Your task to perform on an android device: turn off improve location accuracy Image 0: 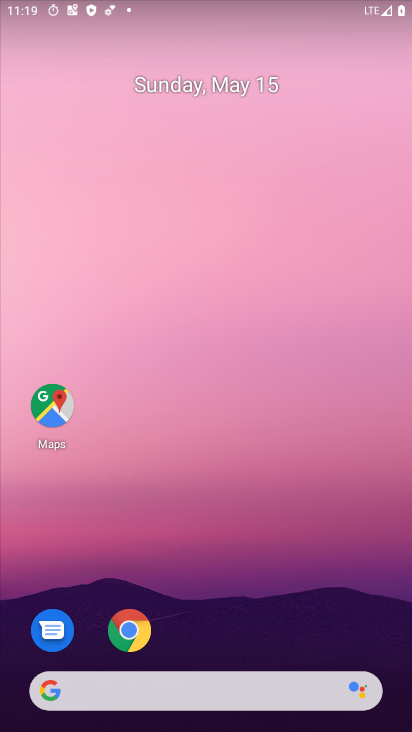
Step 0: drag from (161, 662) to (262, 233)
Your task to perform on an android device: turn off improve location accuracy Image 1: 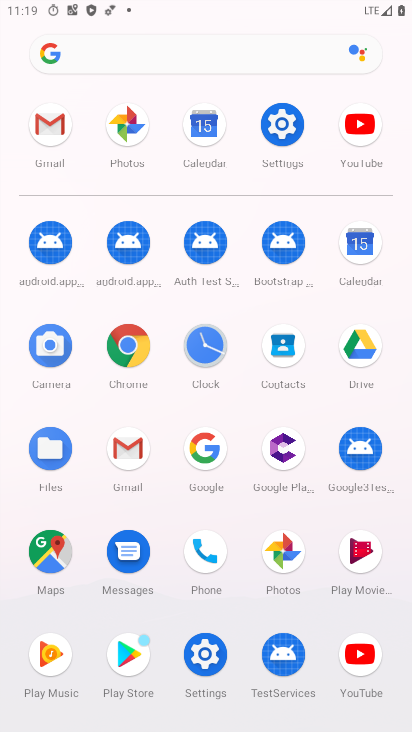
Step 1: click (282, 122)
Your task to perform on an android device: turn off improve location accuracy Image 2: 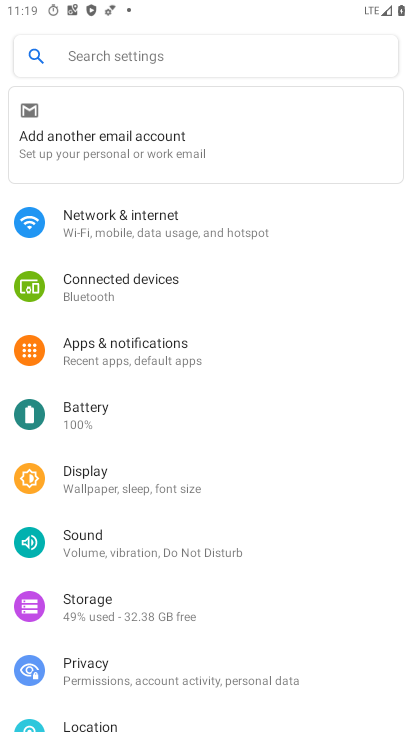
Step 2: drag from (117, 673) to (181, 441)
Your task to perform on an android device: turn off improve location accuracy Image 3: 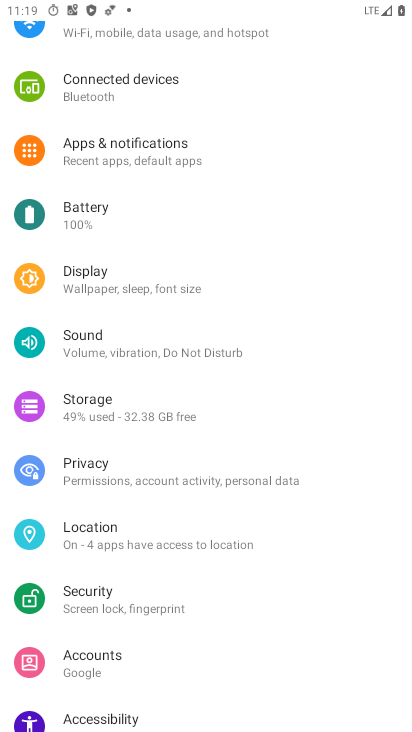
Step 3: click (105, 540)
Your task to perform on an android device: turn off improve location accuracy Image 4: 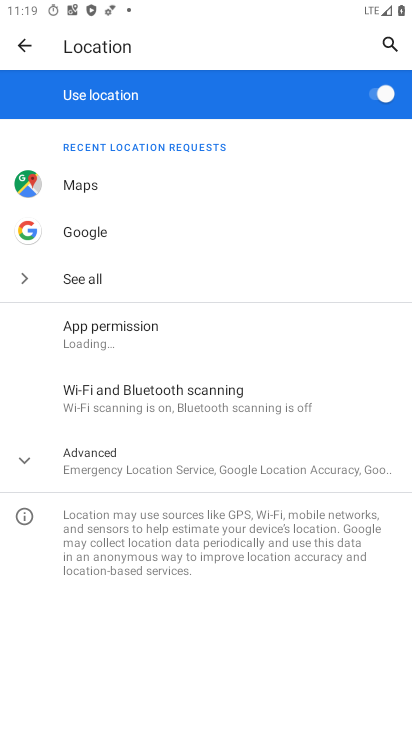
Step 4: click (128, 457)
Your task to perform on an android device: turn off improve location accuracy Image 5: 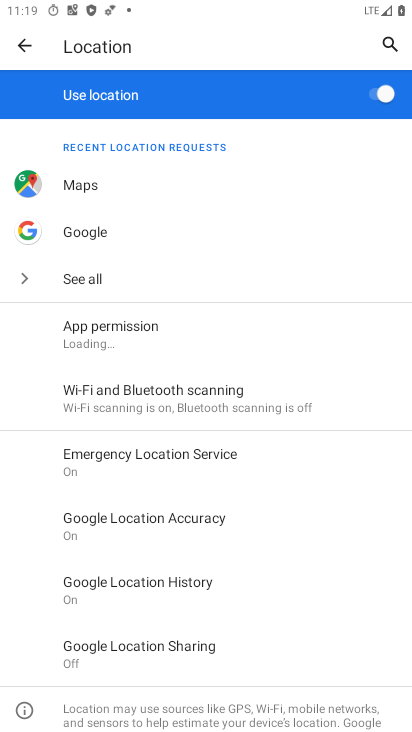
Step 5: click (140, 530)
Your task to perform on an android device: turn off improve location accuracy Image 6: 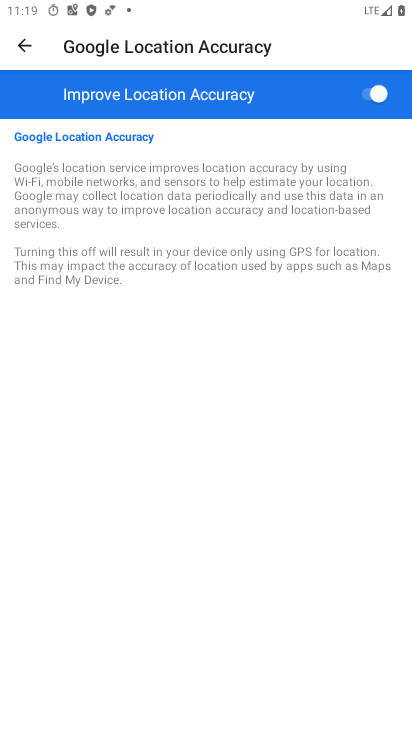
Step 6: click (376, 91)
Your task to perform on an android device: turn off improve location accuracy Image 7: 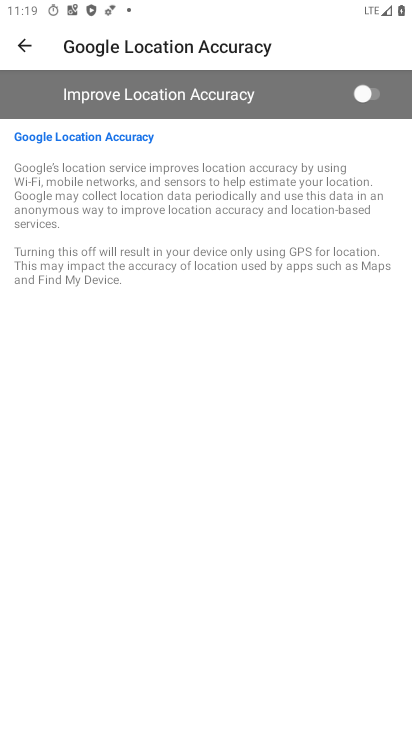
Step 7: task complete